Your task to perform on an android device: Clear all items from cart on bestbuy. Add razer naga to the cart on bestbuy Image 0: 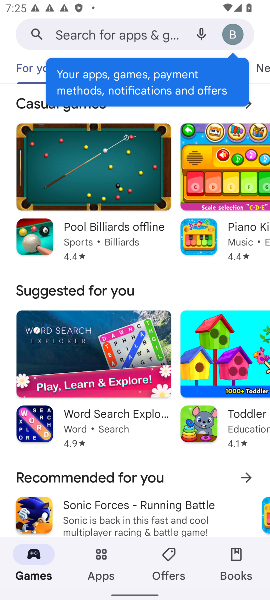
Step 0: press home button
Your task to perform on an android device: Clear all items from cart on bestbuy. Add razer naga to the cart on bestbuy Image 1: 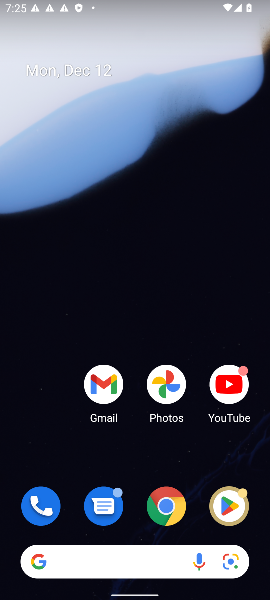
Step 1: click (133, 568)
Your task to perform on an android device: Clear all items from cart on bestbuy. Add razer naga to the cart on bestbuy Image 2: 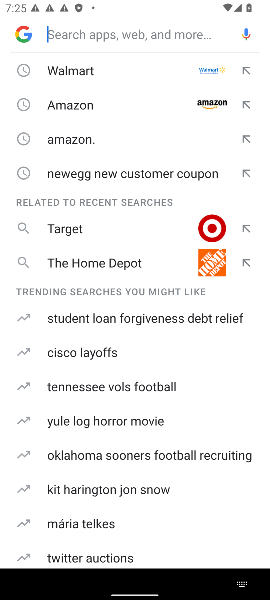
Step 2: type "bestbuy"
Your task to perform on an android device: Clear all items from cart on bestbuy. Add razer naga to the cart on bestbuy Image 3: 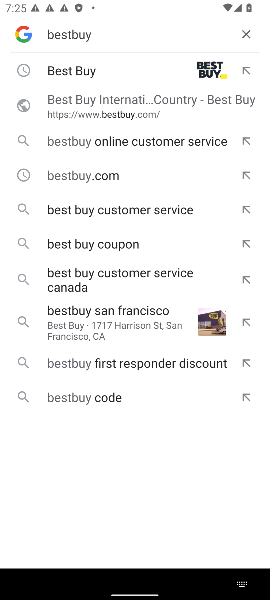
Step 3: click (78, 76)
Your task to perform on an android device: Clear all items from cart on bestbuy. Add razer naga to the cart on bestbuy Image 4: 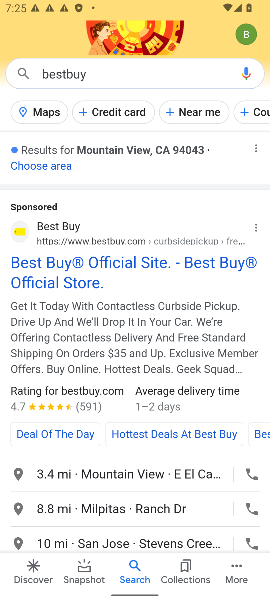
Step 4: click (92, 288)
Your task to perform on an android device: Clear all items from cart on bestbuy. Add razer naga to the cart on bestbuy Image 5: 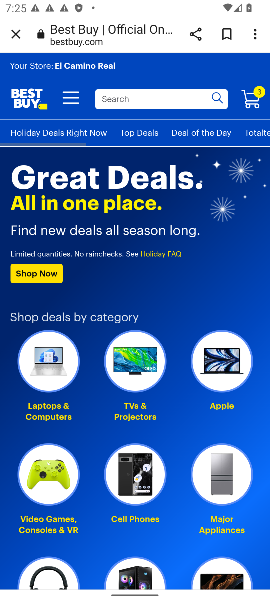
Step 5: click (140, 99)
Your task to perform on an android device: Clear all items from cart on bestbuy. Add razer naga to the cart on bestbuy Image 6: 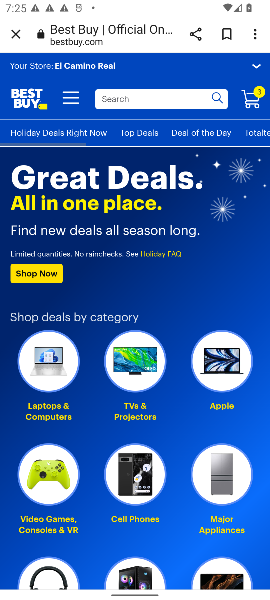
Step 6: type "razer naga"
Your task to perform on an android device: Clear all items from cart on bestbuy. Add razer naga to the cart on bestbuy Image 7: 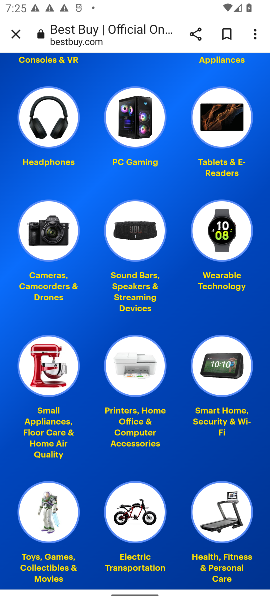
Step 7: drag from (171, 191) to (250, 508)
Your task to perform on an android device: Clear all items from cart on bestbuy. Add razer naga to the cart on bestbuy Image 8: 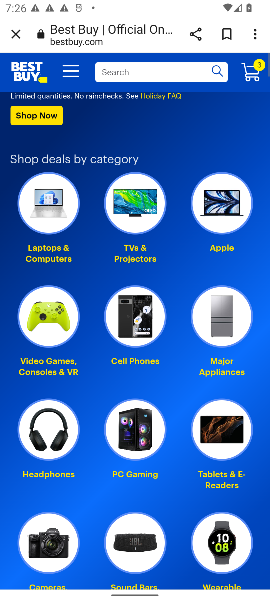
Step 8: click (135, 74)
Your task to perform on an android device: Clear all items from cart on bestbuy. Add razer naga to the cart on bestbuy Image 9: 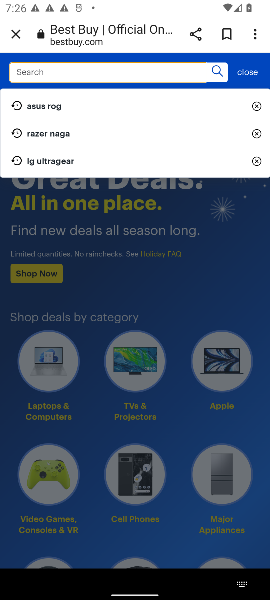
Step 9: type "razer naga"
Your task to perform on an android device: Clear all items from cart on bestbuy. Add razer naga to the cart on bestbuy Image 10: 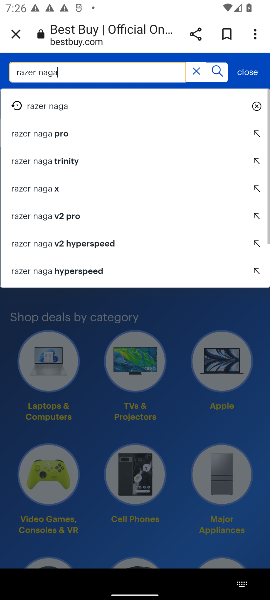
Step 10: click (103, 103)
Your task to perform on an android device: Clear all items from cart on bestbuy. Add razer naga to the cart on bestbuy Image 11: 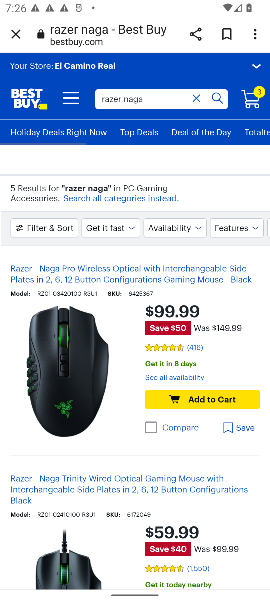
Step 11: click (186, 398)
Your task to perform on an android device: Clear all items from cart on bestbuy. Add razer naga to the cart on bestbuy Image 12: 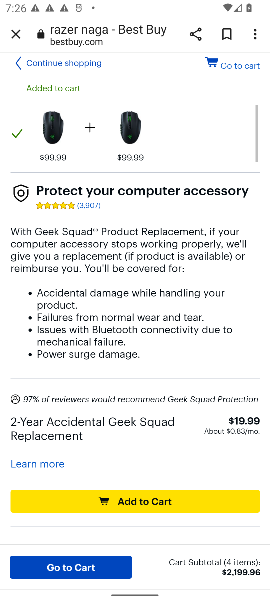
Step 12: task complete